Your task to perform on an android device: Open privacy settings Image 0: 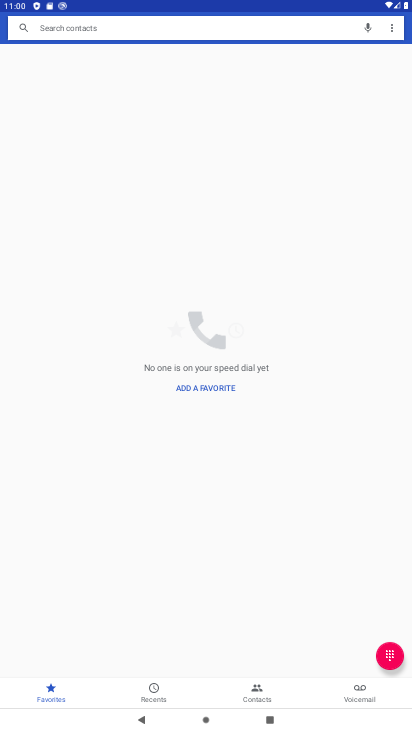
Step 0: press home button
Your task to perform on an android device: Open privacy settings Image 1: 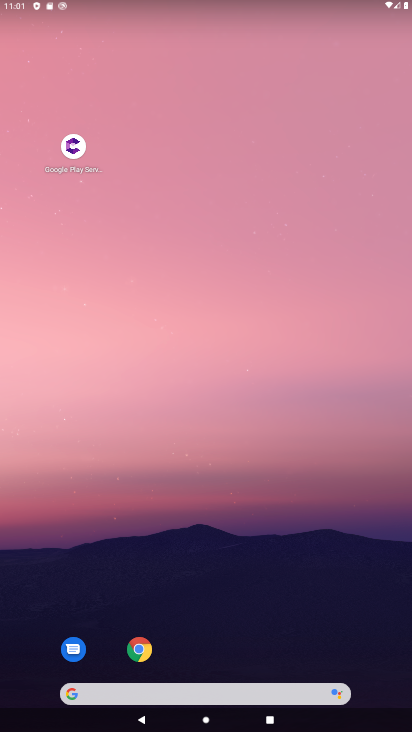
Step 1: drag from (209, 665) to (161, 53)
Your task to perform on an android device: Open privacy settings Image 2: 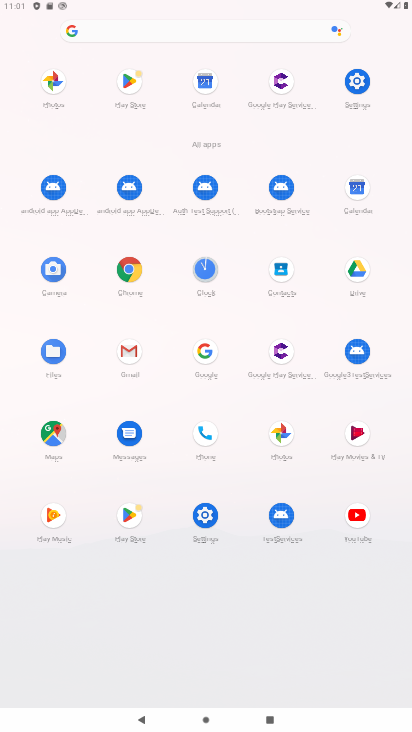
Step 2: click (356, 84)
Your task to perform on an android device: Open privacy settings Image 3: 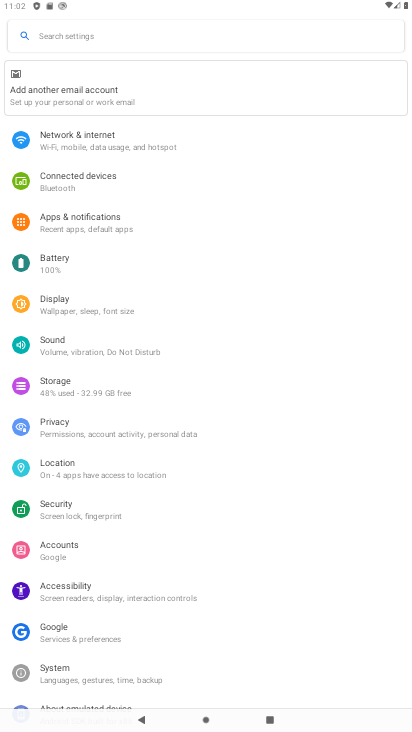
Step 3: click (43, 424)
Your task to perform on an android device: Open privacy settings Image 4: 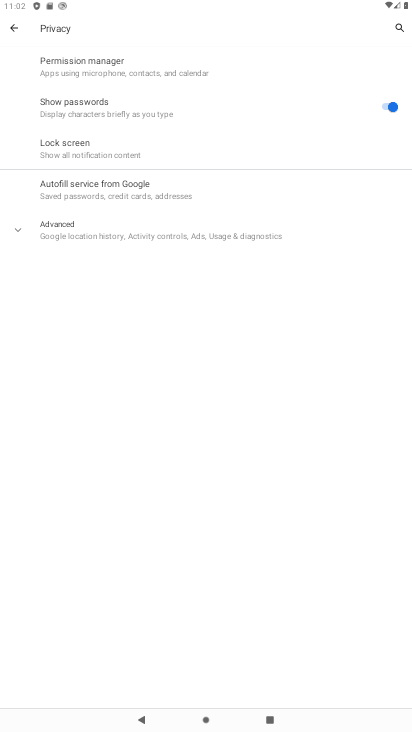
Step 4: task complete